Your task to perform on an android device: check google app version Image 0: 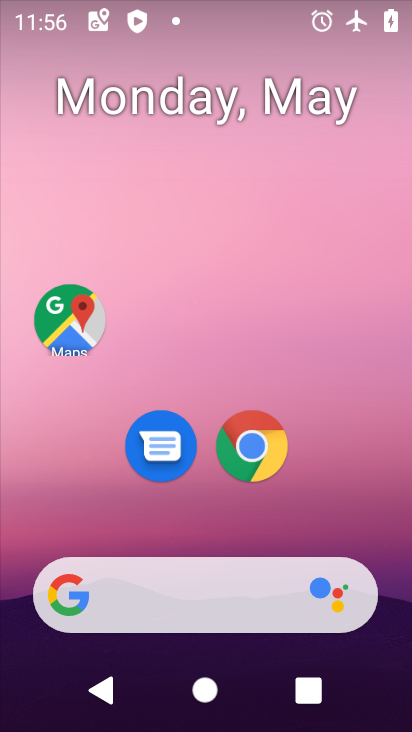
Step 0: drag from (271, 518) to (317, 223)
Your task to perform on an android device: check google app version Image 1: 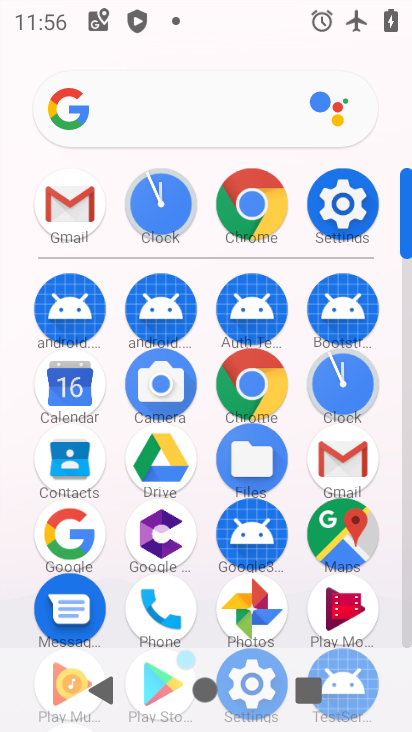
Step 1: drag from (205, 592) to (251, 339)
Your task to perform on an android device: check google app version Image 2: 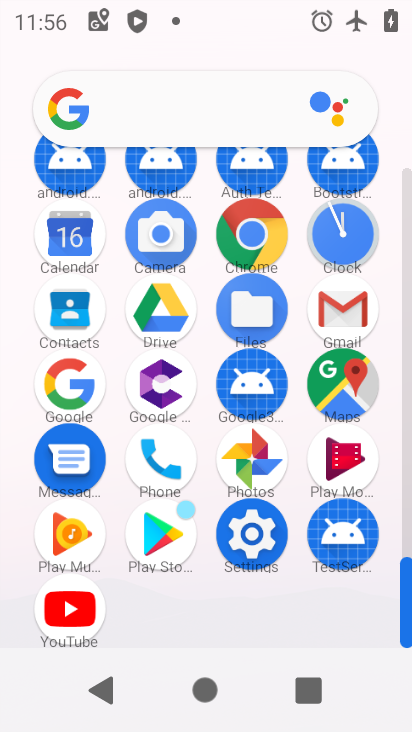
Step 2: drag from (175, 274) to (181, 388)
Your task to perform on an android device: check google app version Image 3: 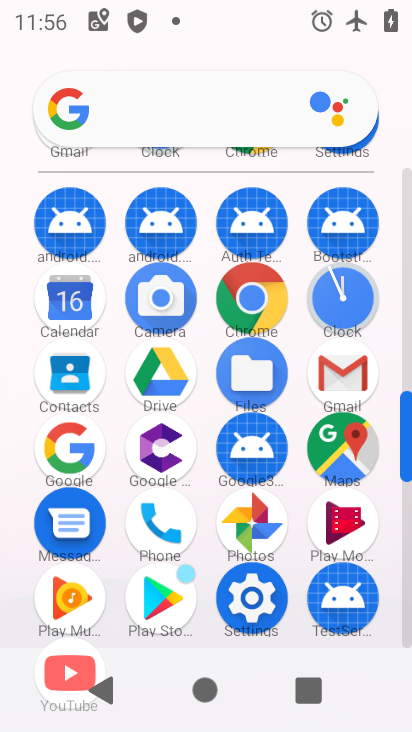
Step 3: click (62, 445)
Your task to perform on an android device: check google app version Image 4: 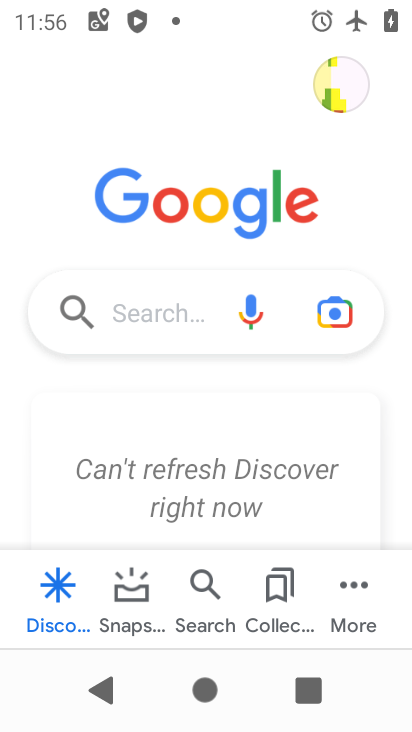
Step 4: click (347, 570)
Your task to perform on an android device: check google app version Image 5: 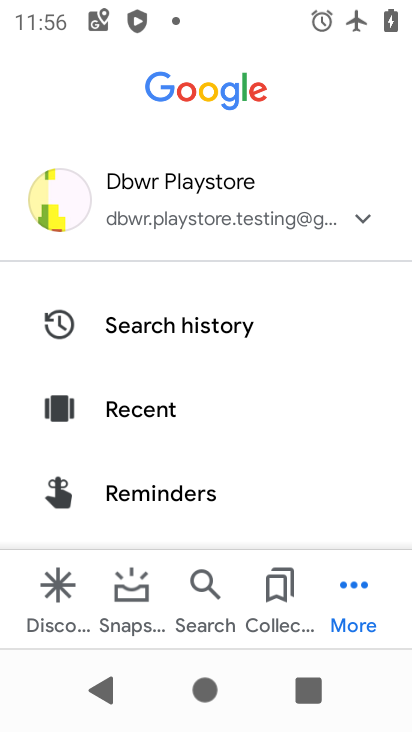
Step 5: drag from (186, 475) to (249, 181)
Your task to perform on an android device: check google app version Image 6: 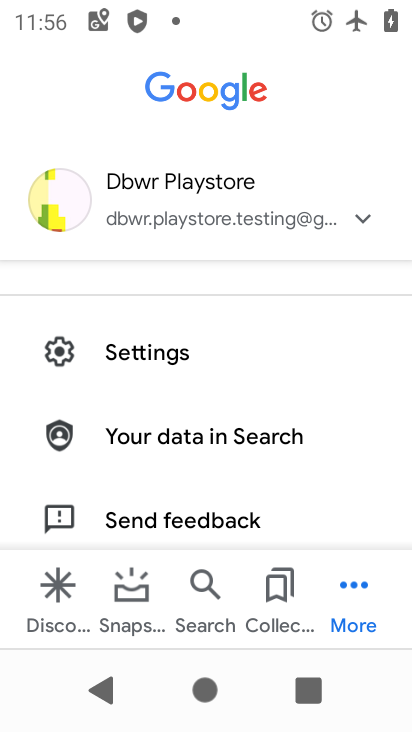
Step 6: click (122, 360)
Your task to perform on an android device: check google app version Image 7: 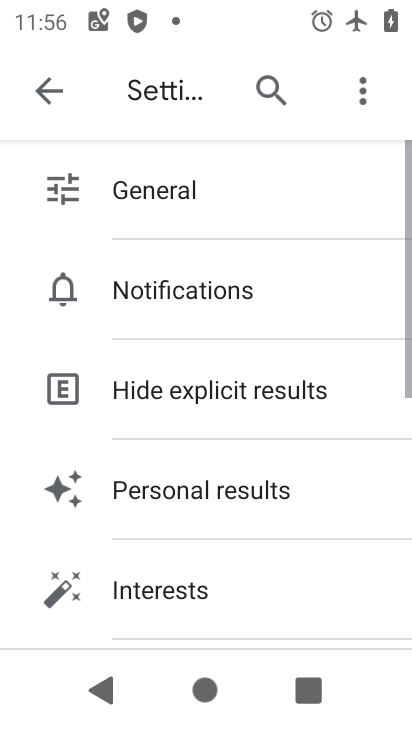
Step 7: drag from (222, 579) to (286, 278)
Your task to perform on an android device: check google app version Image 8: 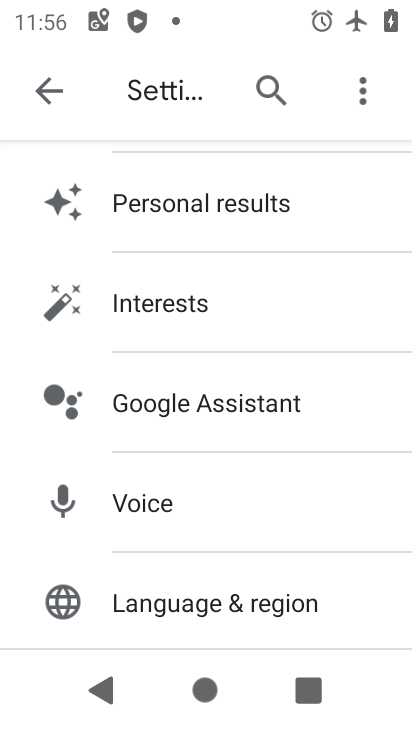
Step 8: drag from (216, 564) to (303, 313)
Your task to perform on an android device: check google app version Image 9: 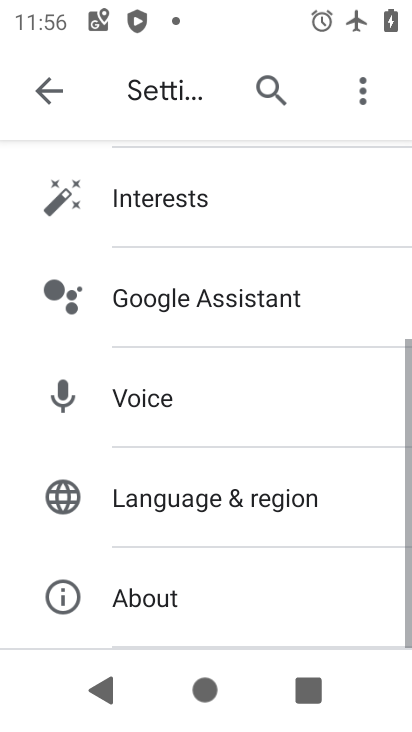
Step 9: click (238, 595)
Your task to perform on an android device: check google app version Image 10: 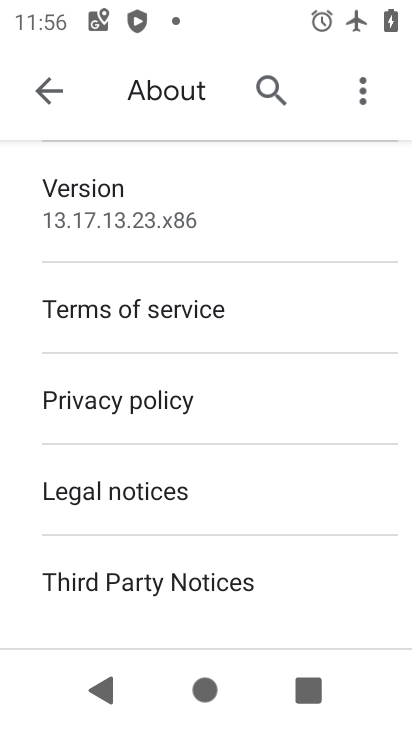
Step 10: task complete